Your task to perform on an android device: Open accessibility settings Image 0: 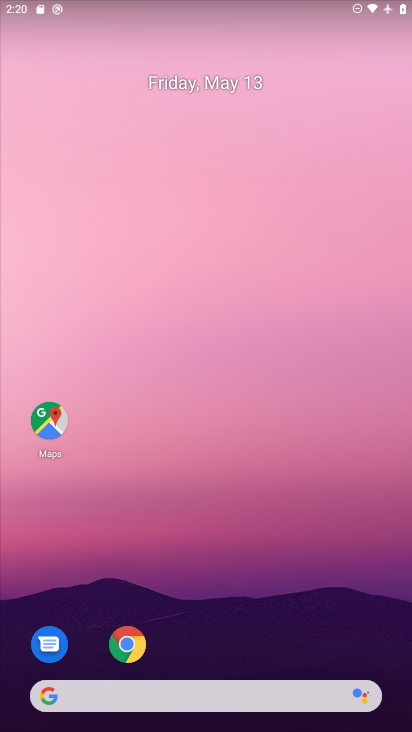
Step 0: drag from (343, 565) to (265, 73)
Your task to perform on an android device: Open accessibility settings Image 1: 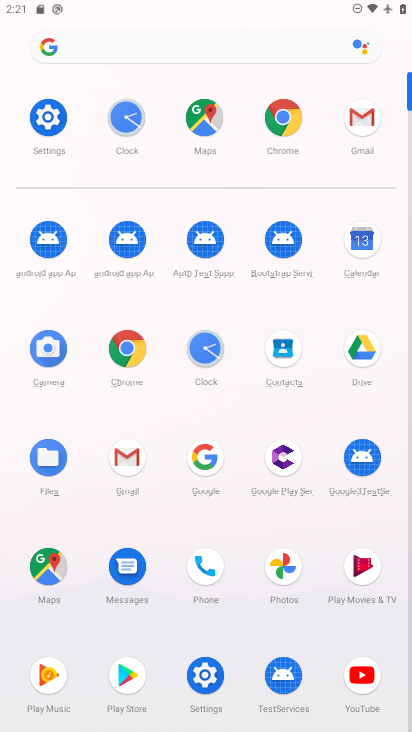
Step 1: click (214, 673)
Your task to perform on an android device: Open accessibility settings Image 2: 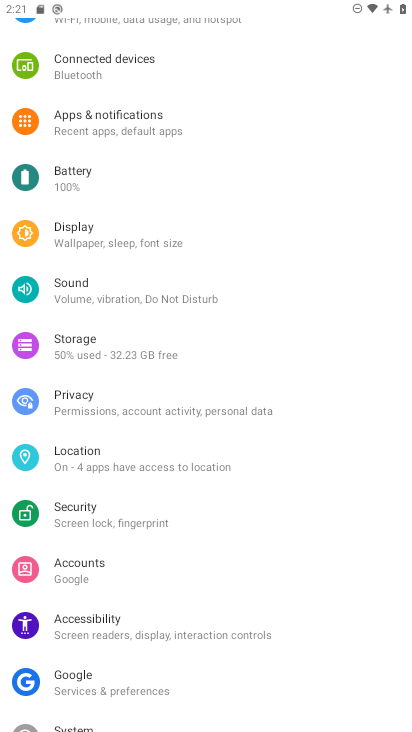
Step 2: click (116, 625)
Your task to perform on an android device: Open accessibility settings Image 3: 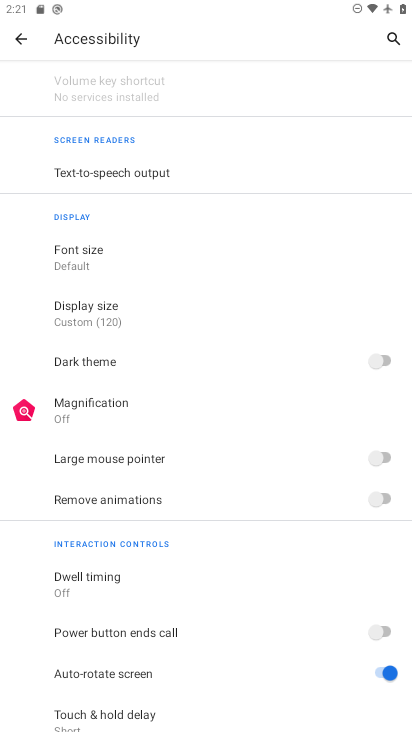
Step 3: task complete